Your task to perform on an android device: Open the Play Movies app and select the watchlist tab. Image 0: 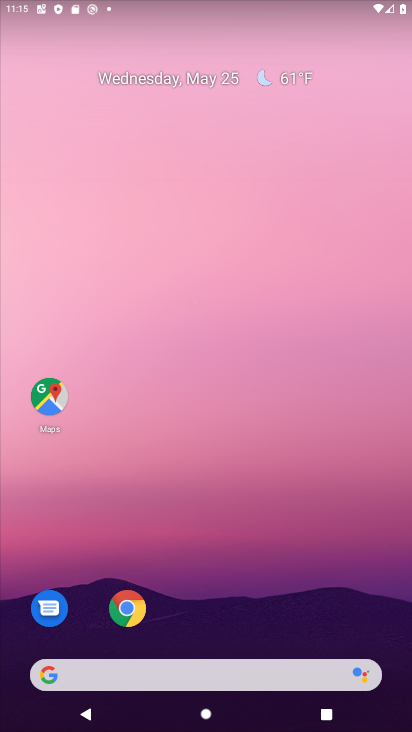
Step 0: drag from (261, 572) to (261, 190)
Your task to perform on an android device: Open the Play Movies app and select the watchlist tab. Image 1: 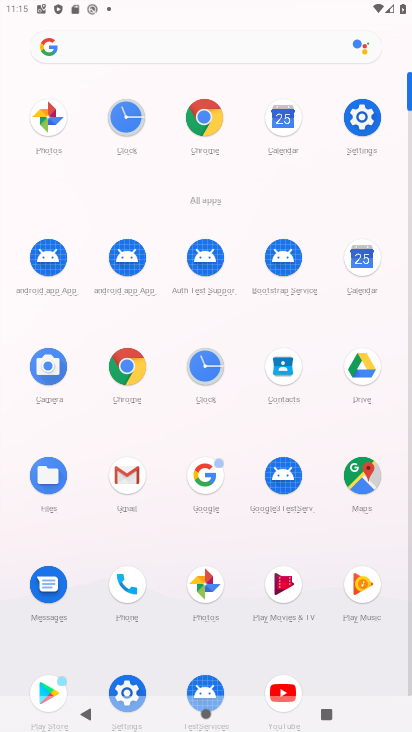
Step 1: click (275, 595)
Your task to perform on an android device: Open the Play Movies app and select the watchlist tab. Image 2: 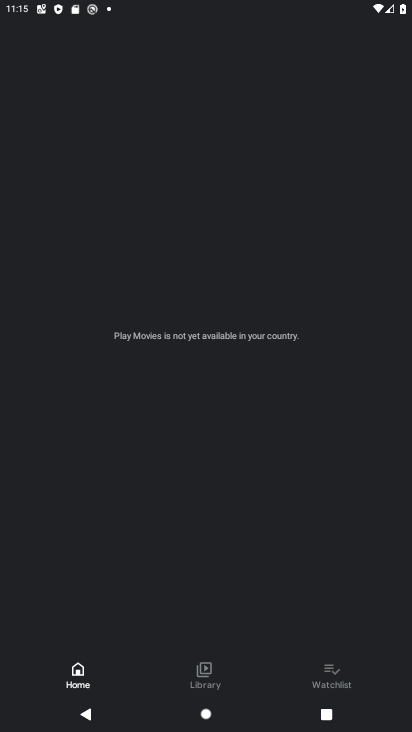
Step 2: click (337, 663)
Your task to perform on an android device: Open the Play Movies app and select the watchlist tab. Image 3: 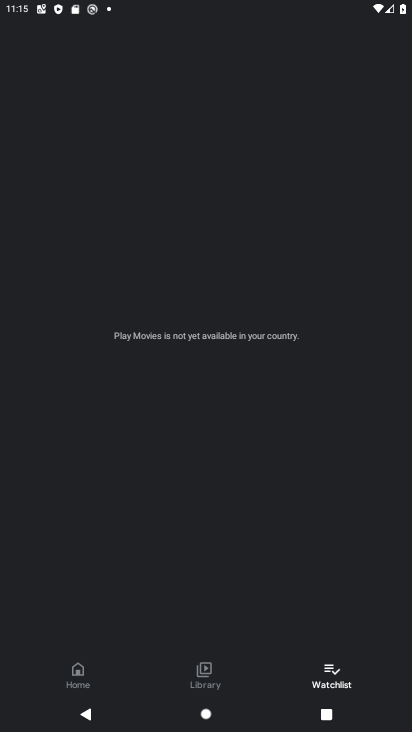
Step 3: task complete